Your task to perform on an android device: Open ESPN.com Image 0: 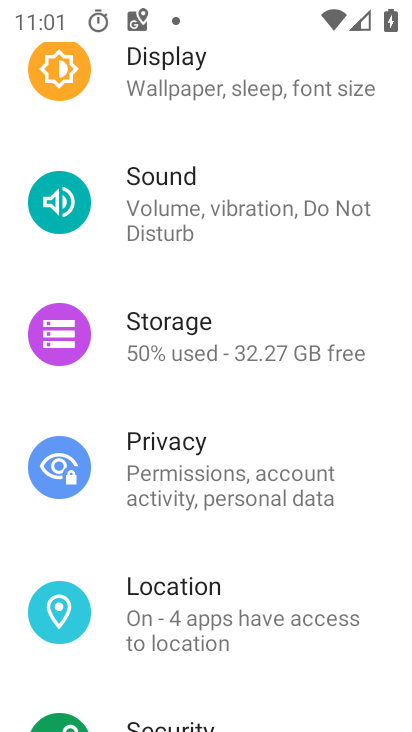
Step 0: press home button
Your task to perform on an android device: Open ESPN.com Image 1: 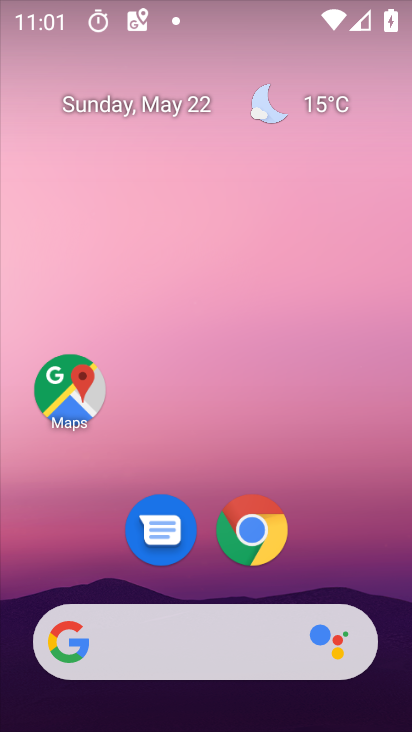
Step 1: drag from (399, 669) to (394, 267)
Your task to perform on an android device: Open ESPN.com Image 2: 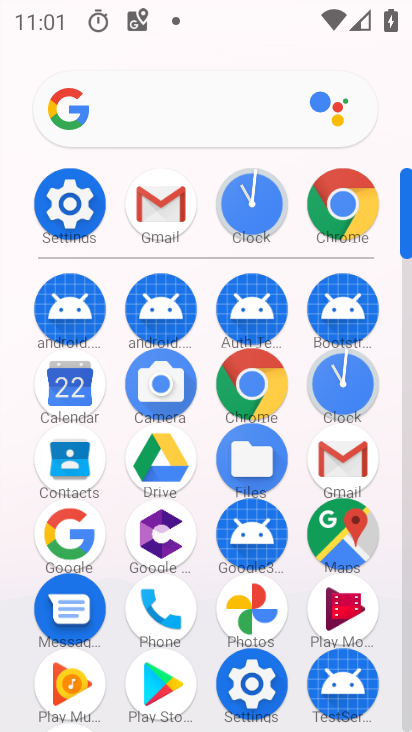
Step 2: click (348, 190)
Your task to perform on an android device: Open ESPN.com Image 3: 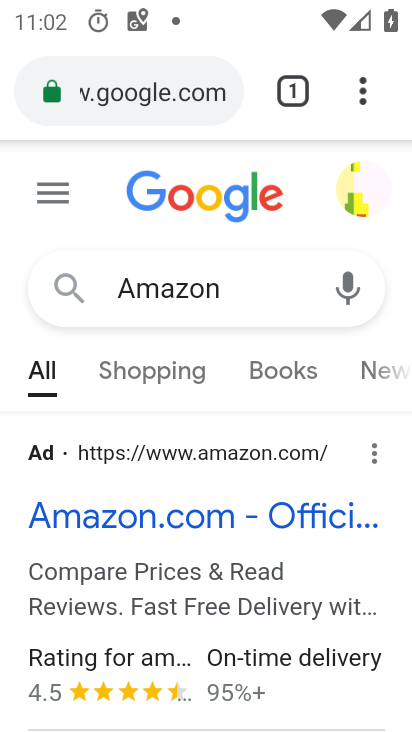
Step 3: click (234, 90)
Your task to perform on an android device: Open ESPN.com Image 4: 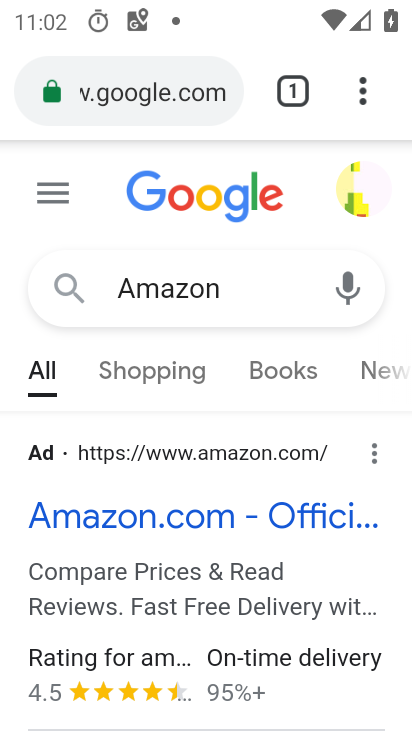
Step 4: click (225, 94)
Your task to perform on an android device: Open ESPN.com Image 5: 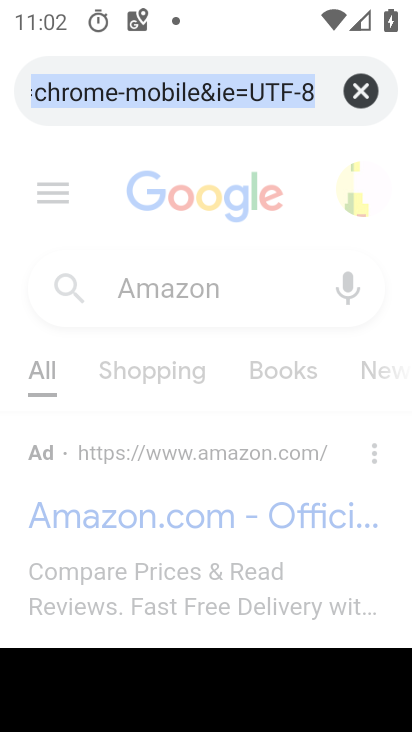
Step 5: click (342, 88)
Your task to perform on an android device: Open ESPN.com Image 6: 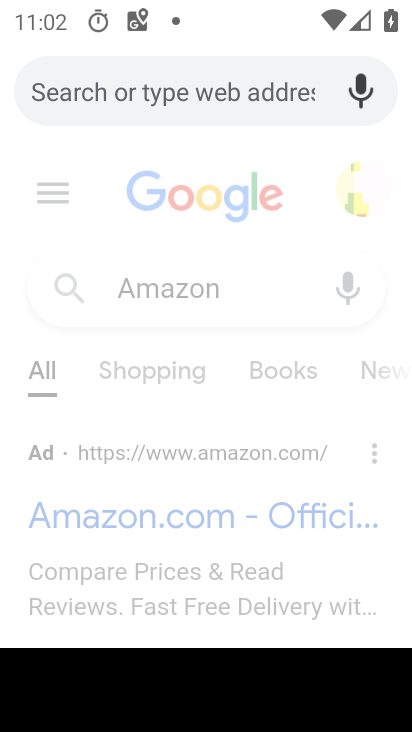
Step 6: type "ESPN.com"
Your task to perform on an android device: Open ESPN.com Image 7: 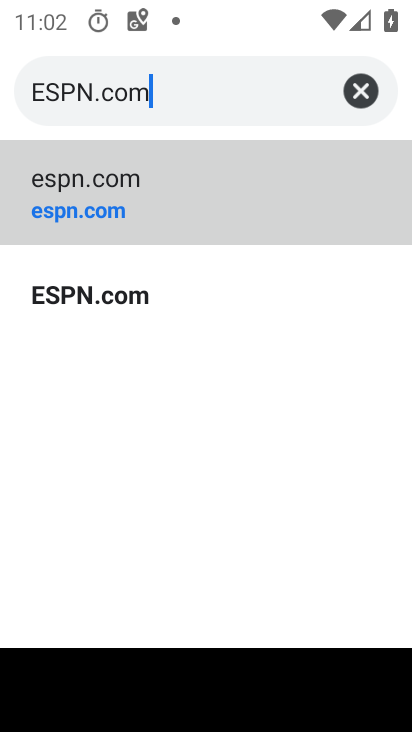
Step 7: click (115, 294)
Your task to perform on an android device: Open ESPN.com Image 8: 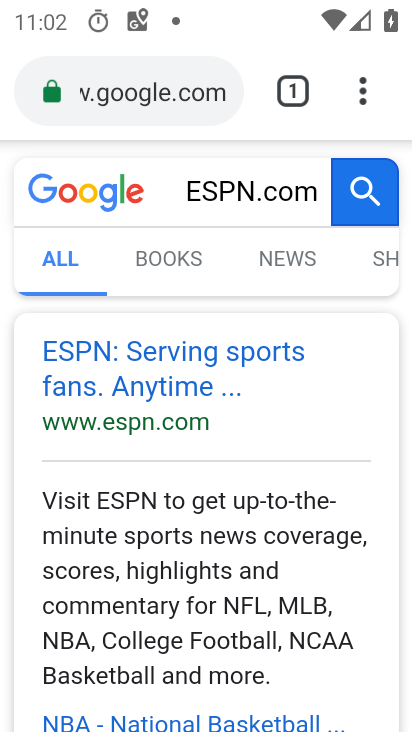
Step 8: task complete